Your task to perform on an android device: turn off javascript in the chrome app Image 0: 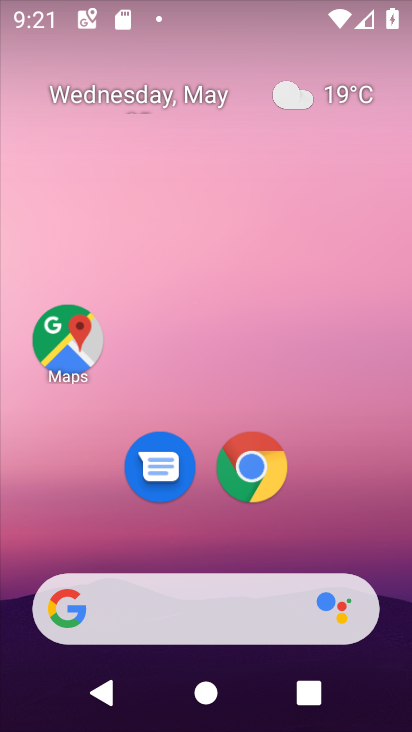
Step 0: click (248, 468)
Your task to perform on an android device: turn off javascript in the chrome app Image 1: 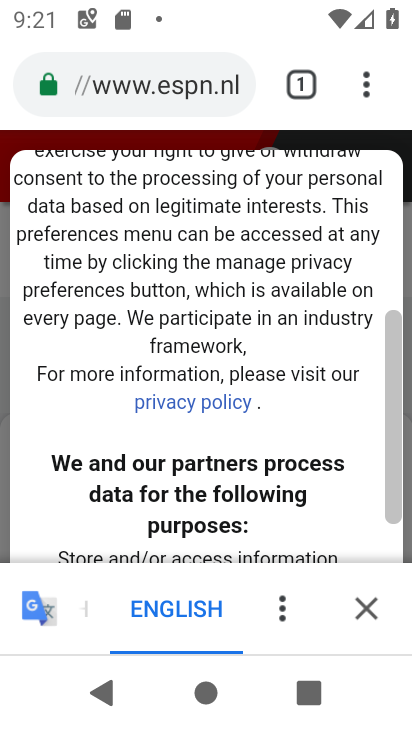
Step 1: click (370, 80)
Your task to perform on an android device: turn off javascript in the chrome app Image 2: 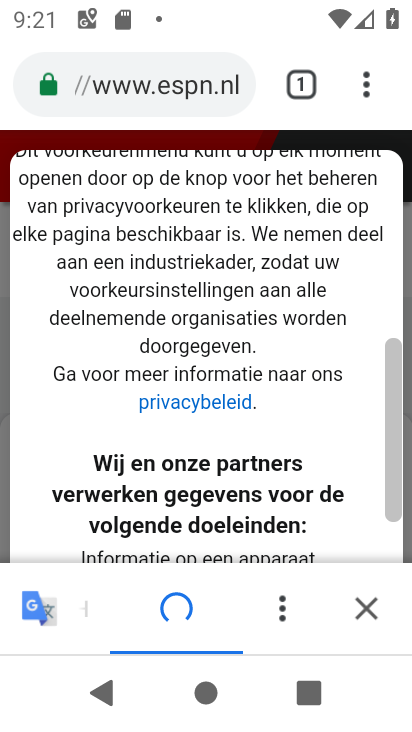
Step 2: drag from (351, 82) to (130, 508)
Your task to perform on an android device: turn off javascript in the chrome app Image 3: 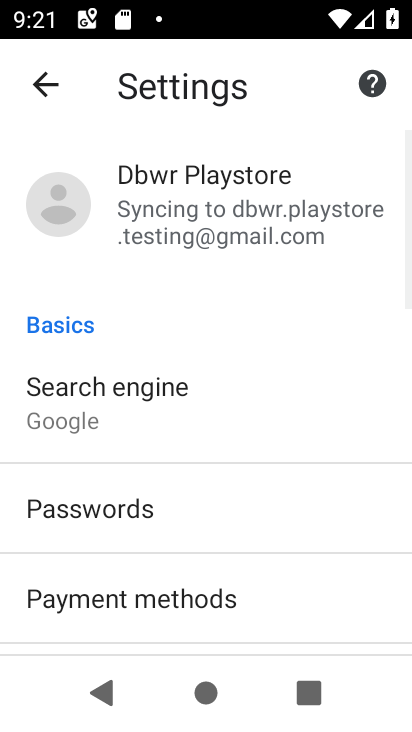
Step 3: drag from (295, 496) to (280, 129)
Your task to perform on an android device: turn off javascript in the chrome app Image 4: 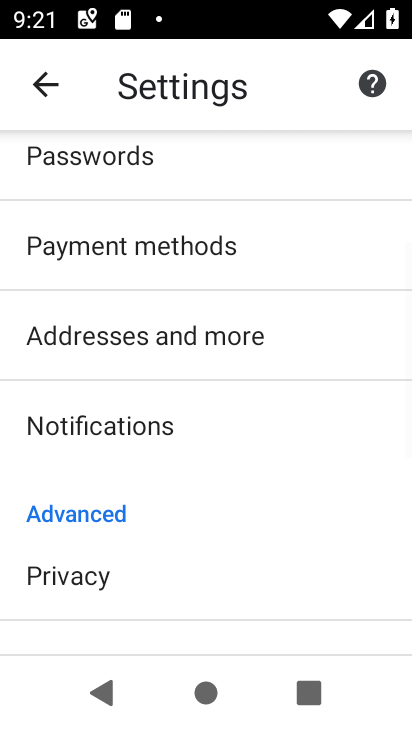
Step 4: drag from (180, 485) to (218, 189)
Your task to perform on an android device: turn off javascript in the chrome app Image 5: 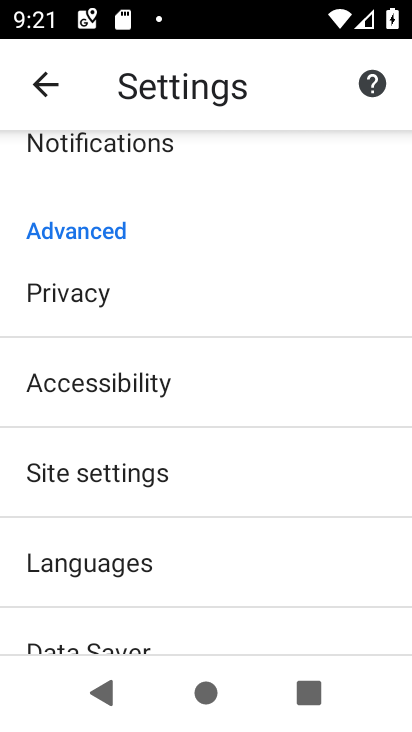
Step 5: click (122, 471)
Your task to perform on an android device: turn off javascript in the chrome app Image 6: 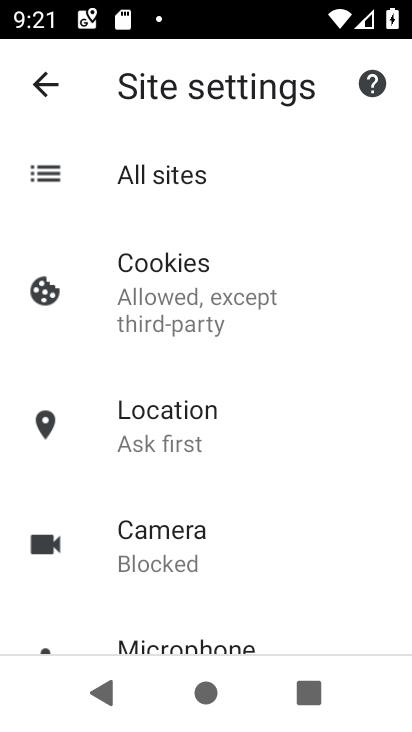
Step 6: drag from (203, 515) to (254, 176)
Your task to perform on an android device: turn off javascript in the chrome app Image 7: 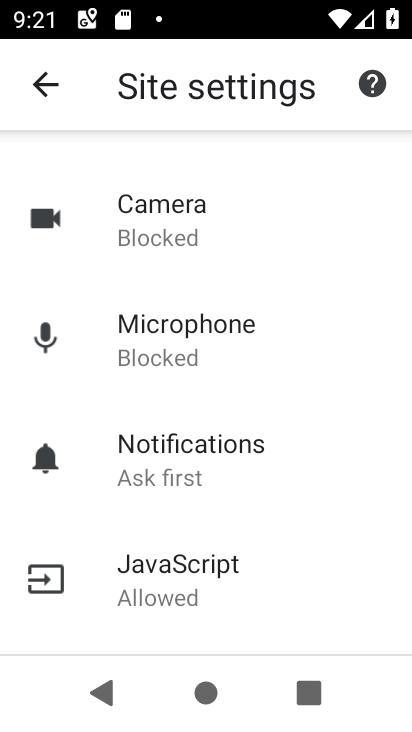
Step 7: click (167, 586)
Your task to perform on an android device: turn off javascript in the chrome app Image 8: 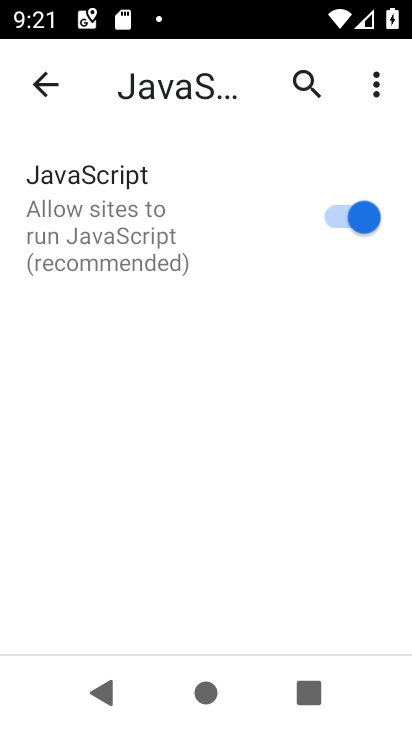
Step 8: click (324, 209)
Your task to perform on an android device: turn off javascript in the chrome app Image 9: 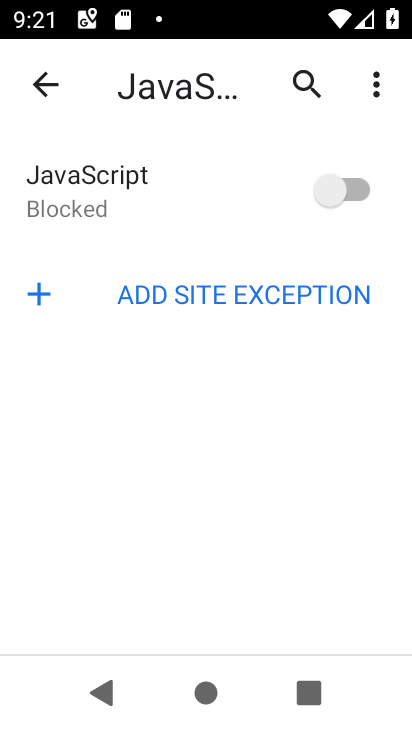
Step 9: task complete